Your task to perform on an android device: snooze an email in the gmail app Image 0: 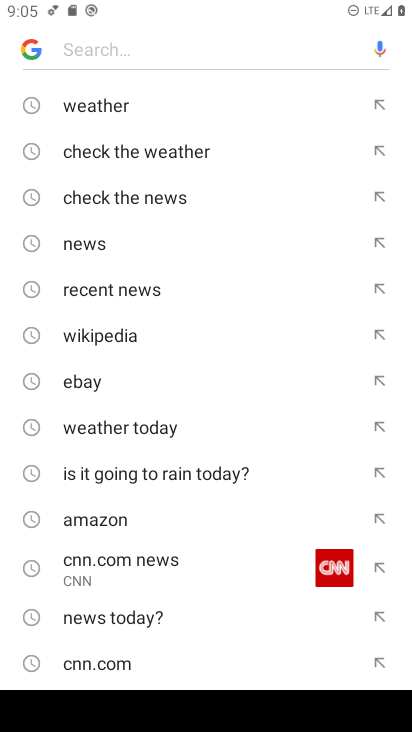
Step 0: press home button
Your task to perform on an android device: snooze an email in the gmail app Image 1: 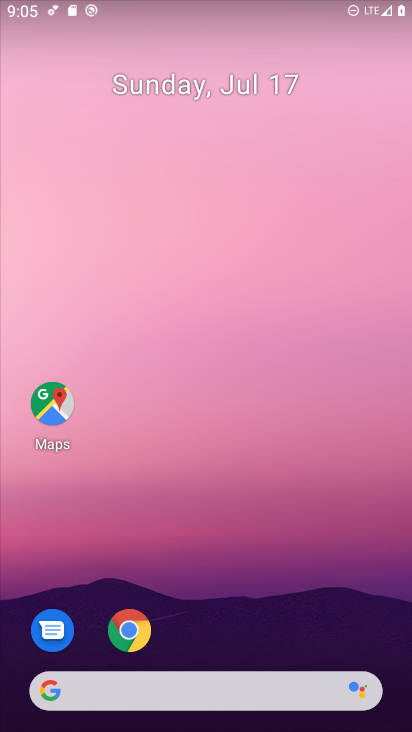
Step 1: drag from (169, 630) to (196, 197)
Your task to perform on an android device: snooze an email in the gmail app Image 2: 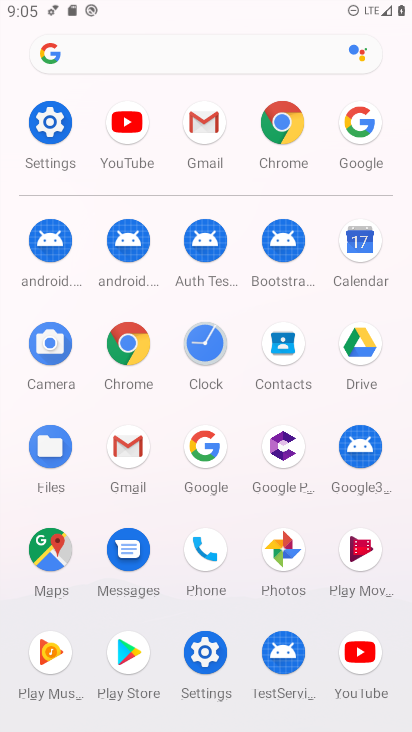
Step 2: click (210, 125)
Your task to perform on an android device: snooze an email in the gmail app Image 3: 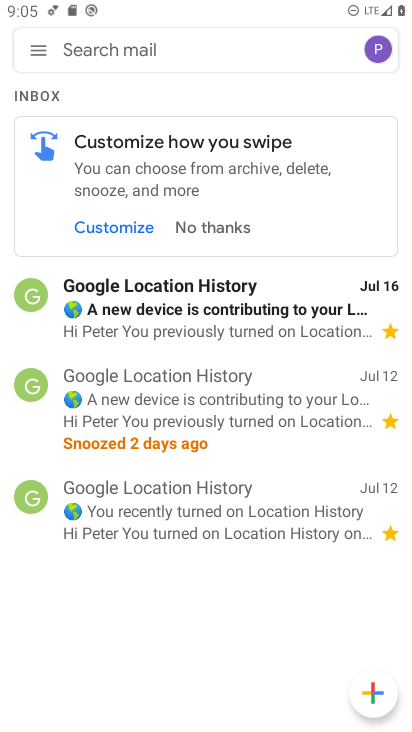
Step 3: click (29, 52)
Your task to perform on an android device: snooze an email in the gmail app Image 4: 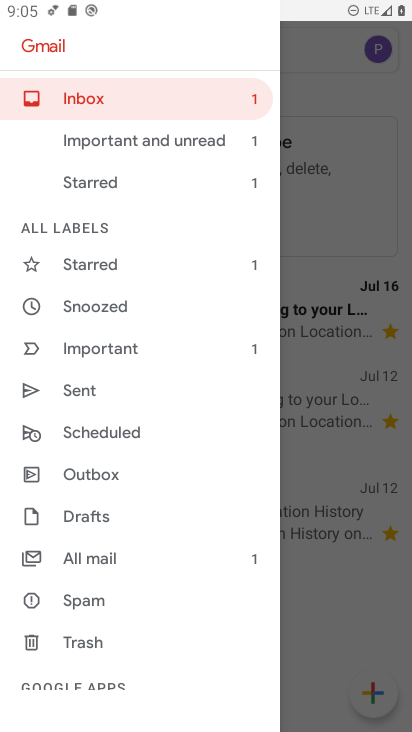
Step 4: click (104, 322)
Your task to perform on an android device: snooze an email in the gmail app Image 5: 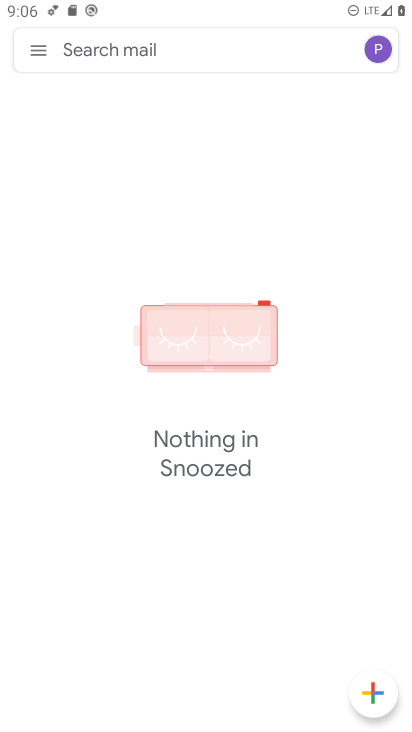
Step 5: task complete